Your task to perform on an android device: Set the phone to "Do not disturb". Image 0: 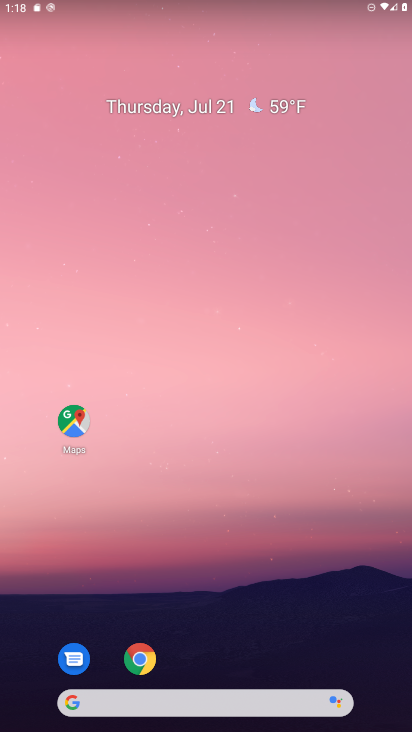
Step 0: drag from (293, 0) to (210, 396)
Your task to perform on an android device: Set the phone to "Do not disturb". Image 1: 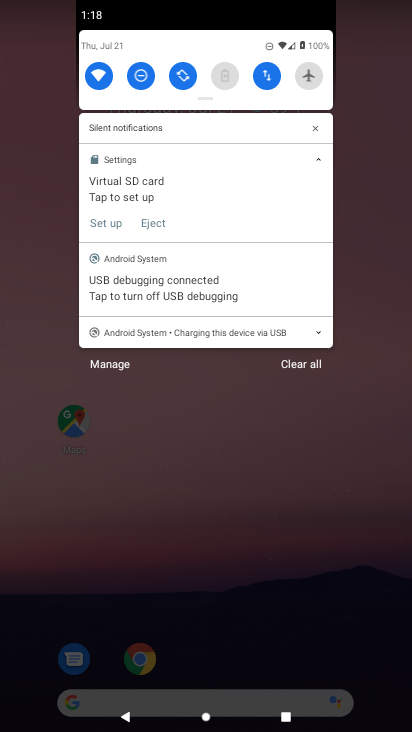
Step 1: task complete